Your task to perform on an android device: Open my contact list Image 0: 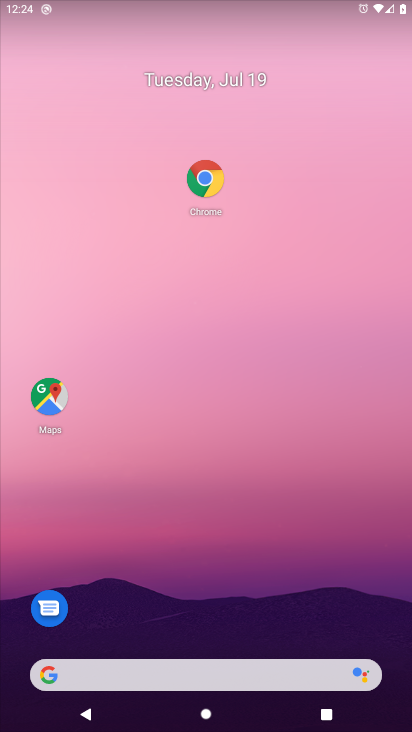
Step 0: drag from (140, 341) to (165, 168)
Your task to perform on an android device: Open my contact list Image 1: 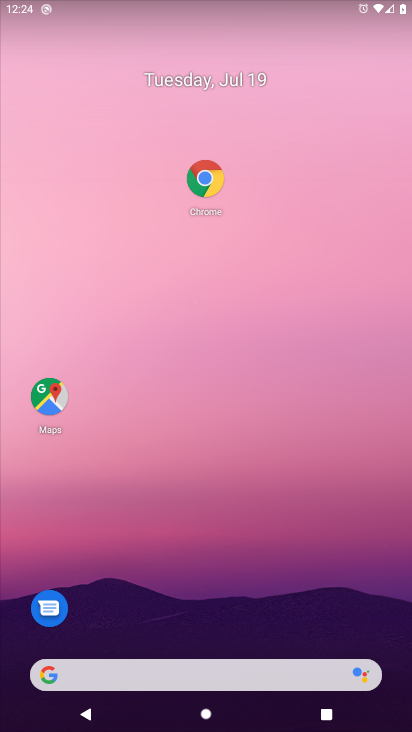
Step 1: drag from (35, 714) to (149, 218)
Your task to perform on an android device: Open my contact list Image 2: 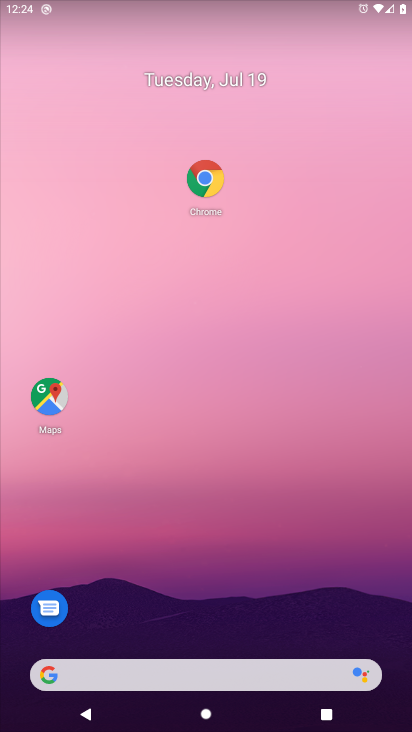
Step 2: drag from (5, 694) to (158, 106)
Your task to perform on an android device: Open my contact list Image 3: 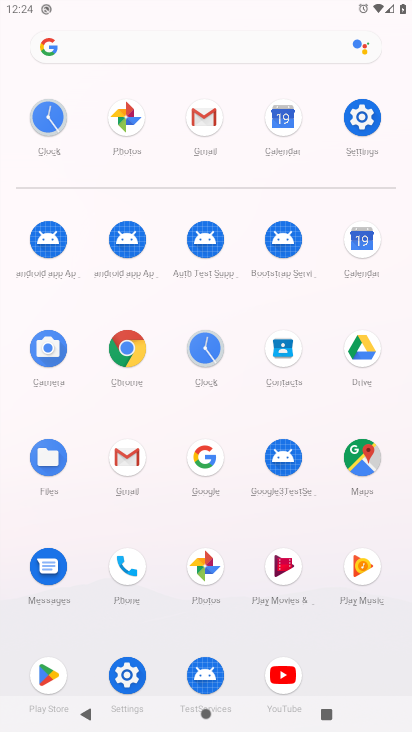
Step 3: click (270, 352)
Your task to perform on an android device: Open my contact list Image 4: 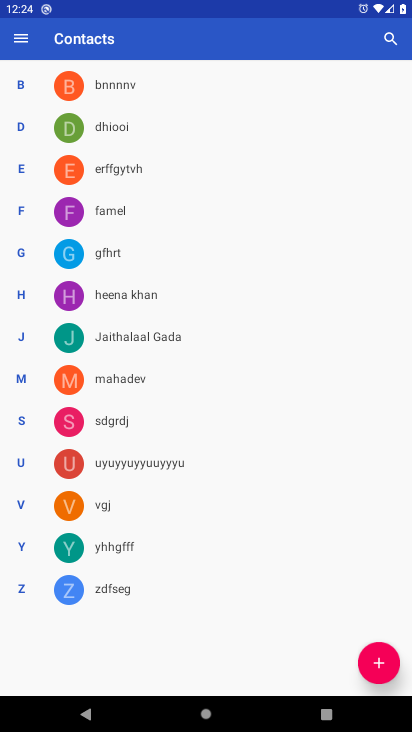
Step 4: task complete